Your task to perform on an android device: Search for seafood restaurants on Google Maps Image 0: 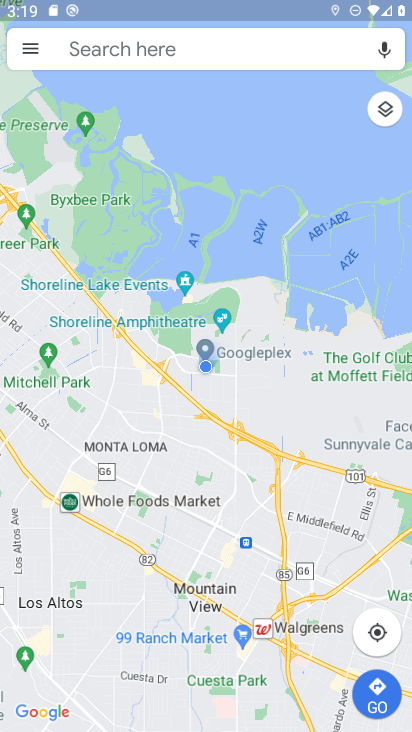
Step 0: click (112, 50)
Your task to perform on an android device: Search for seafood restaurants on Google Maps Image 1: 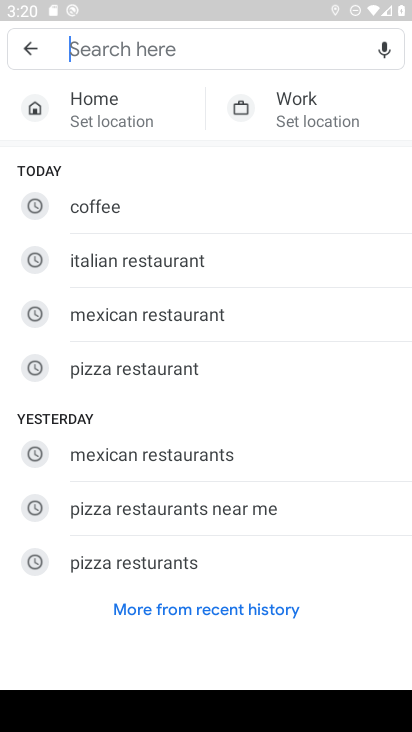
Step 1: type "seafood restaurants"
Your task to perform on an android device: Search for seafood restaurants on Google Maps Image 2: 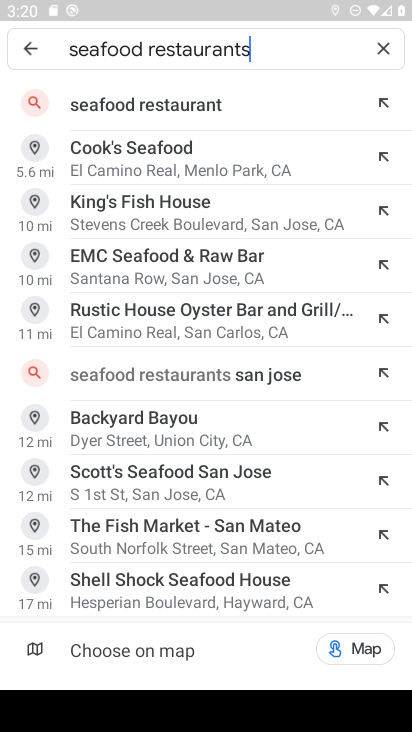
Step 2: click (163, 108)
Your task to perform on an android device: Search for seafood restaurants on Google Maps Image 3: 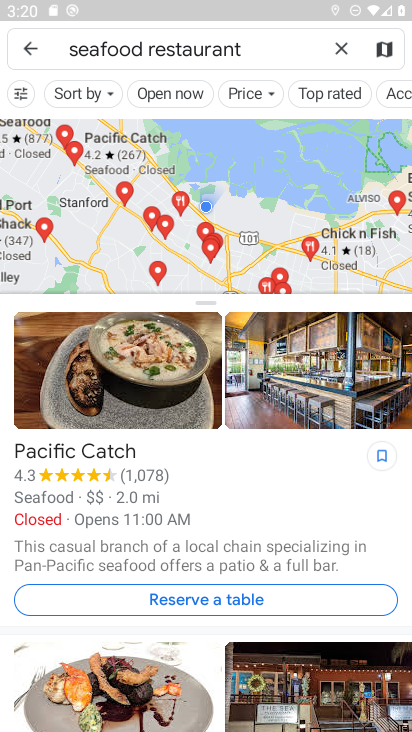
Step 3: task complete